Your task to perform on an android device: allow cookies in the chrome app Image 0: 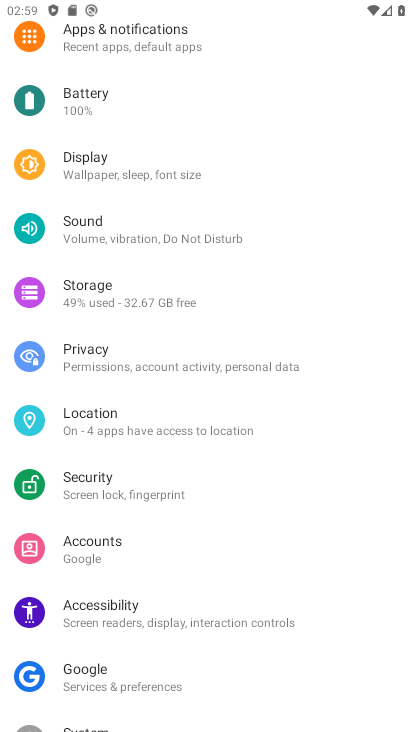
Step 0: press home button
Your task to perform on an android device: allow cookies in the chrome app Image 1: 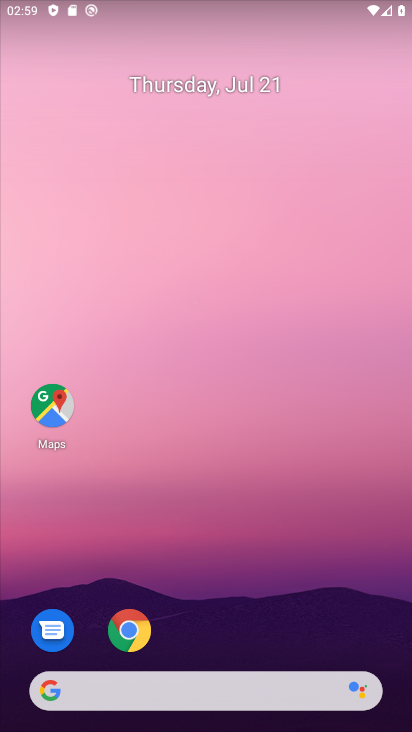
Step 1: click (124, 634)
Your task to perform on an android device: allow cookies in the chrome app Image 2: 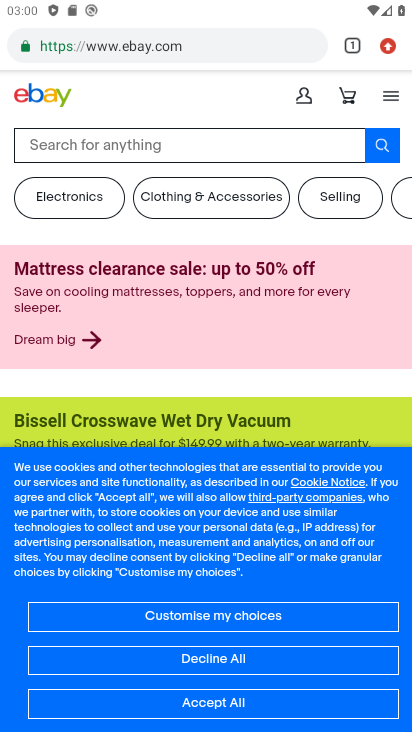
Step 2: click (395, 47)
Your task to perform on an android device: allow cookies in the chrome app Image 3: 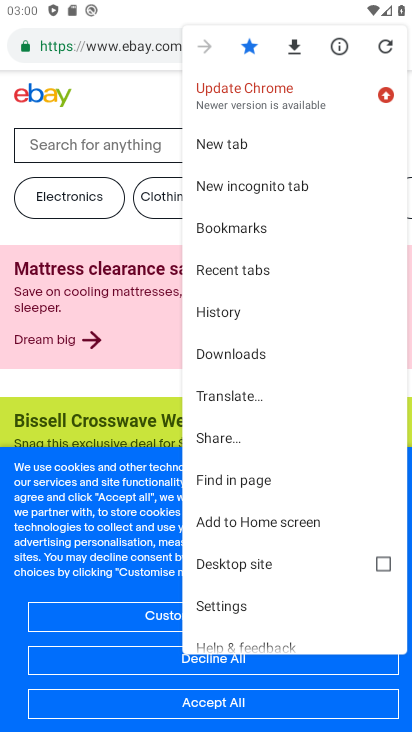
Step 3: click (230, 603)
Your task to perform on an android device: allow cookies in the chrome app Image 4: 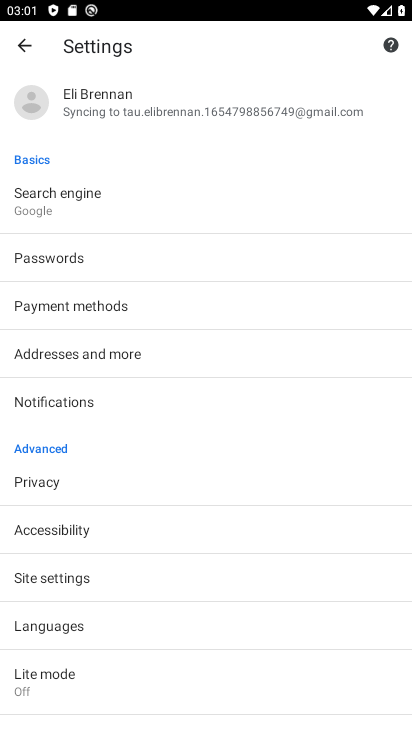
Step 4: click (36, 579)
Your task to perform on an android device: allow cookies in the chrome app Image 5: 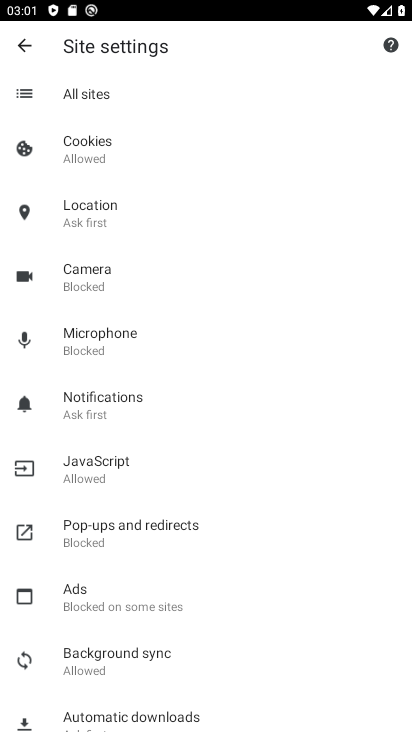
Step 5: click (99, 149)
Your task to perform on an android device: allow cookies in the chrome app Image 6: 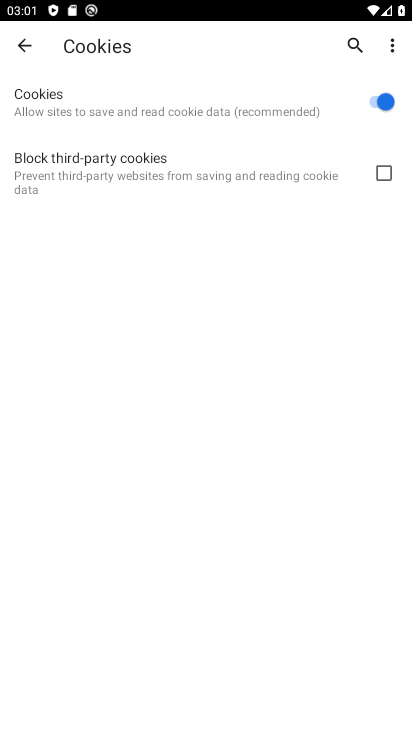
Step 6: task complete